Your task to perform on an android device: Open CNN.com Image 0: 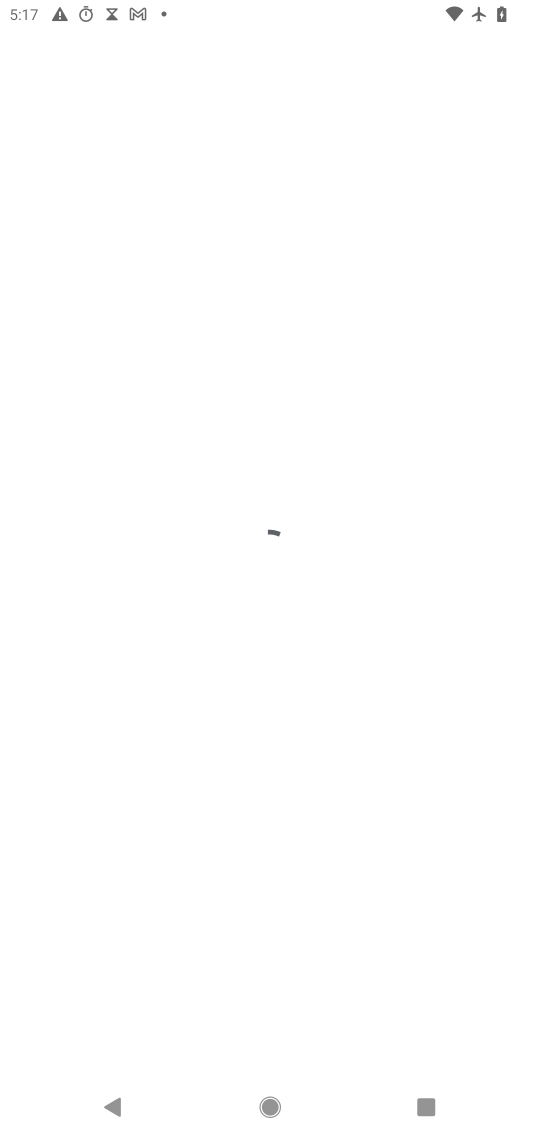
Step 0: press home button
Your task to perform on an android device: Open CNN.com Image 1: 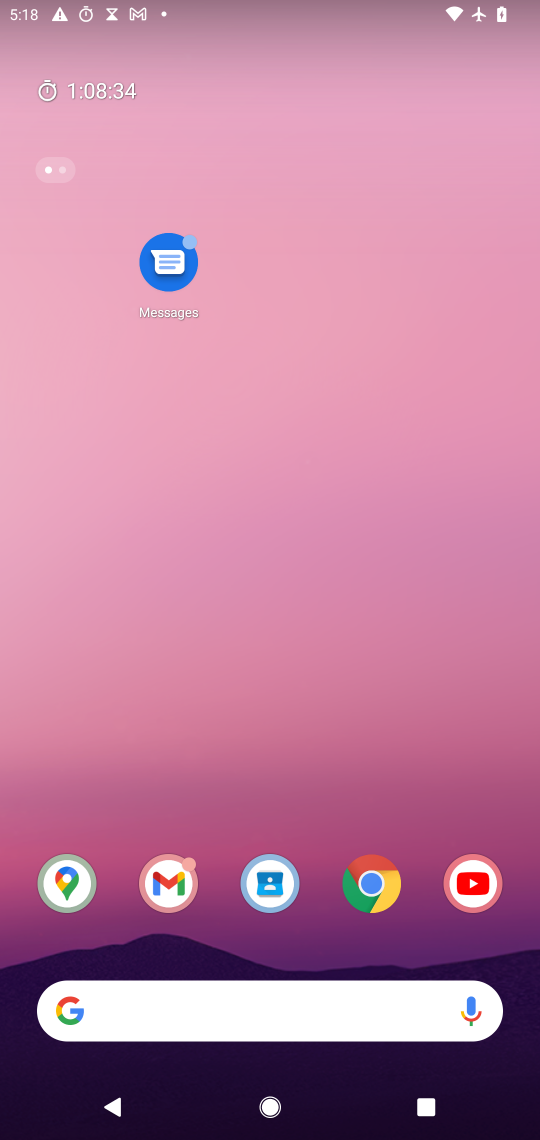
Step 1: click (367, 877)
Your task to perform on an android device: Open CNN.com Image 2: 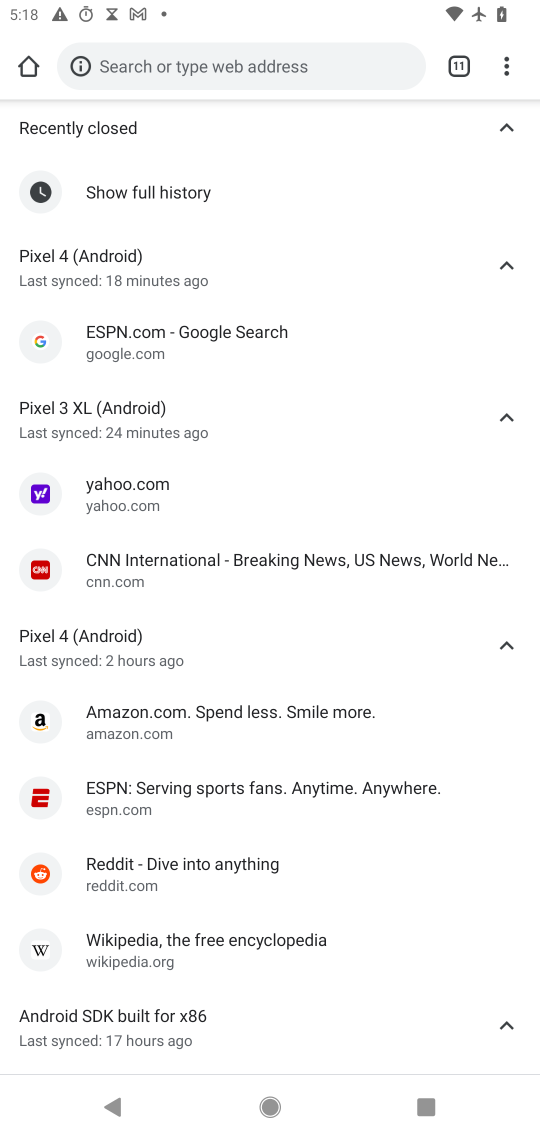
Step 2: click (504, 76)
Your task to perform on an android device: Open CNN.com Image 3: 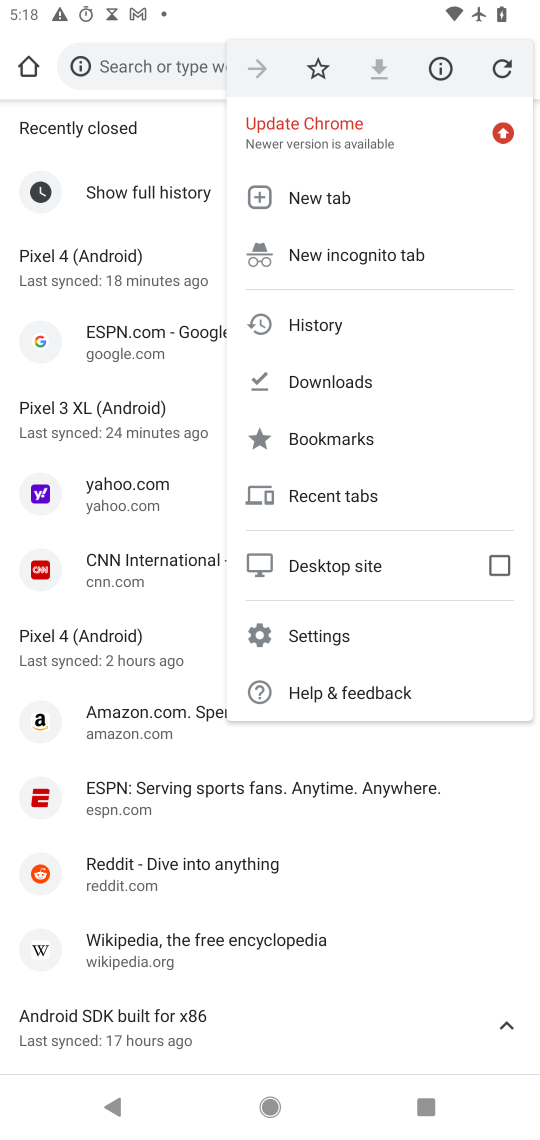
Step 3: click (310, 188)
Your task to perform on an android device: Open CNN.com Image 4: 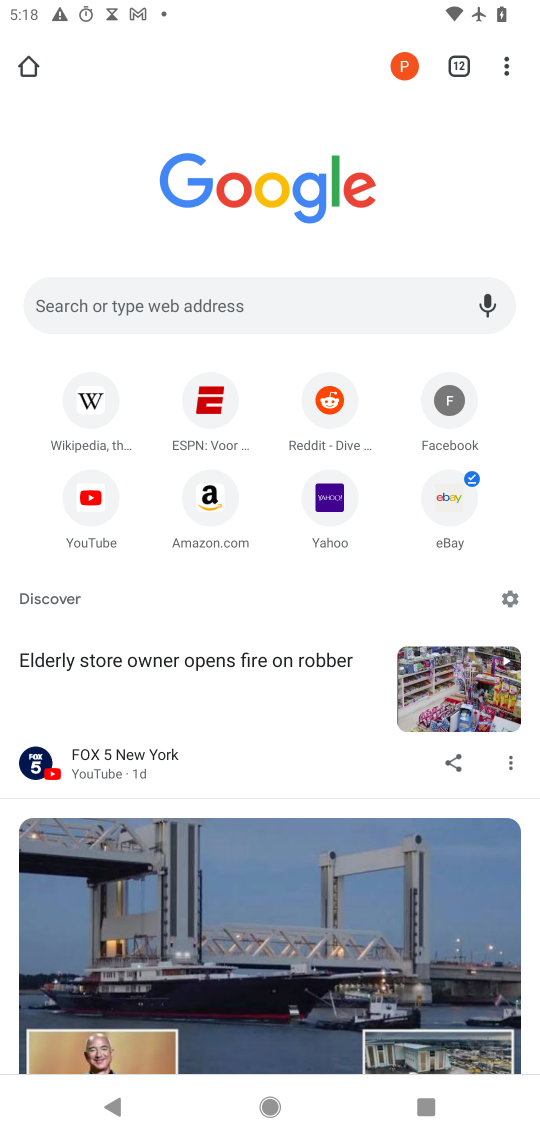
Step 4: click (312, 297)
Your task to perform on an android device: Open CNN.com Image 5: 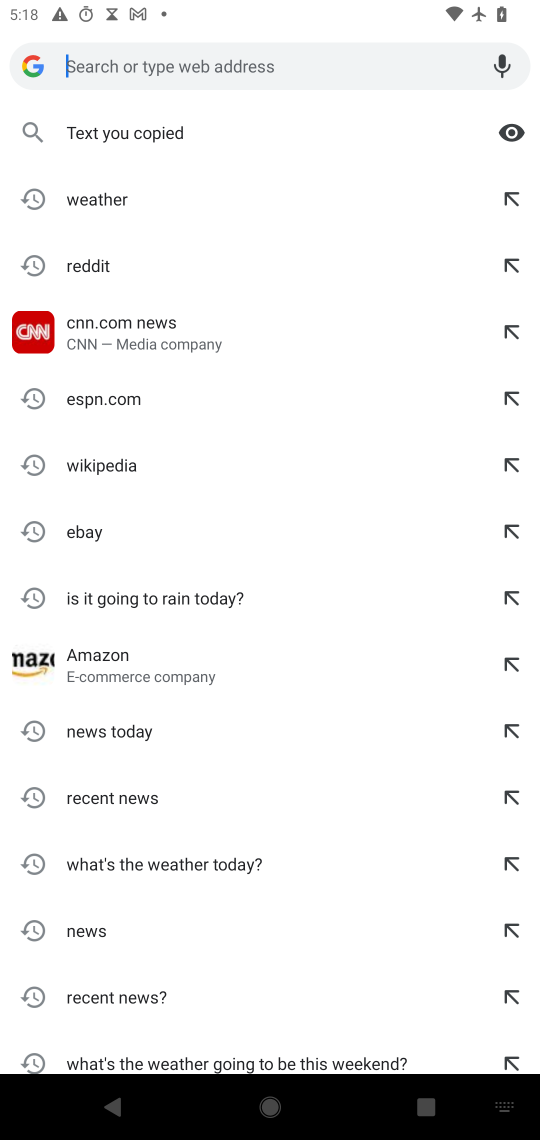
Step 5: type "CNN.com"
Your task to perform on an android device: Open CNN.com Image 6: 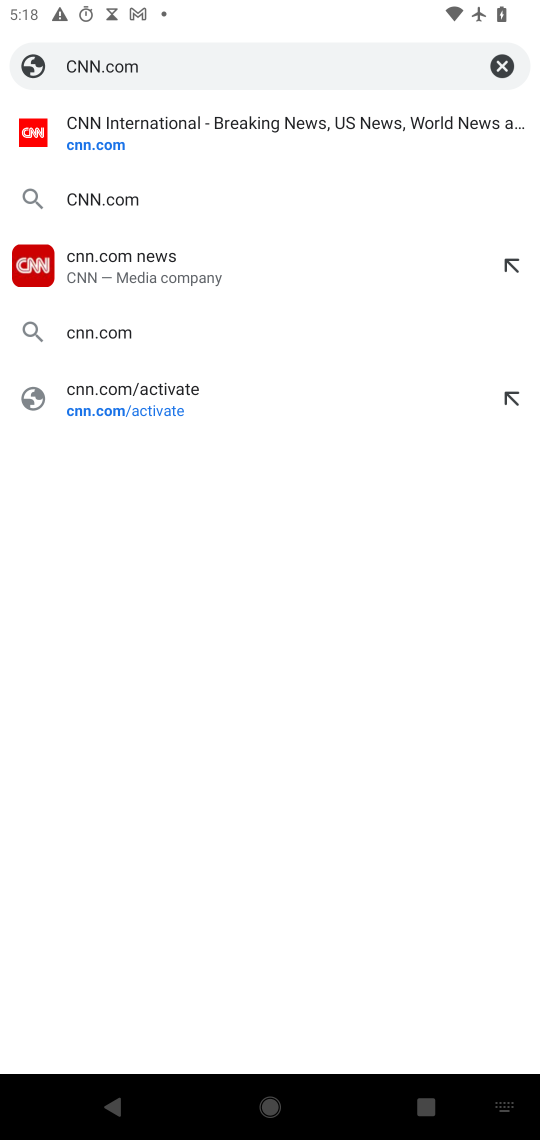
Step 6: click (102, 127)
Your task to perform on an android device: Open CNN.com Image 7: 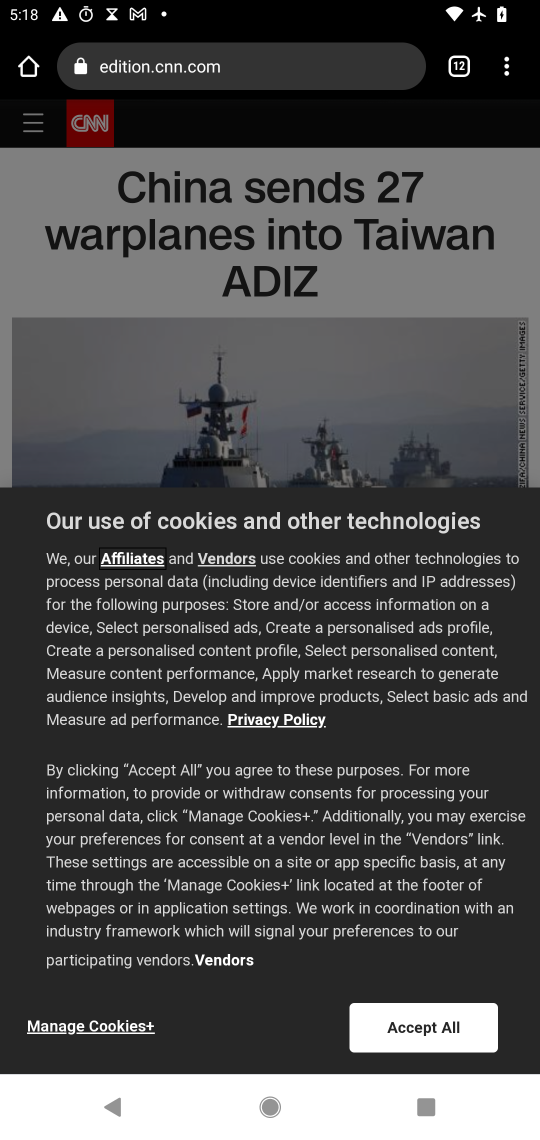
Step 7: task complete